Your task to perform on an android device: turn on location history Image 0: 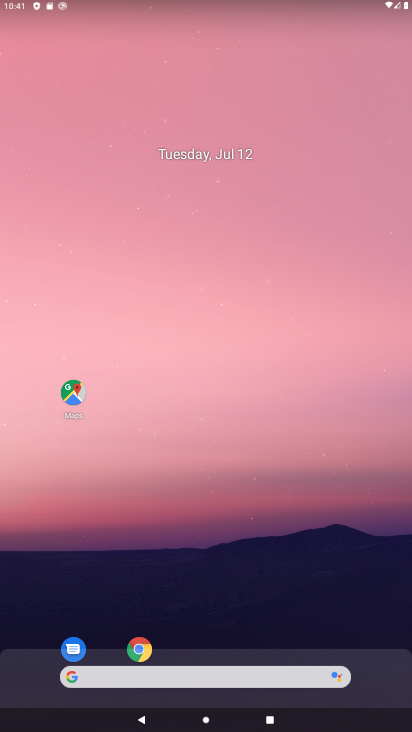
Step 0: drag from (302, 573) to (319, 10)
Your task to perform on an android device: turn on location history Image 1: 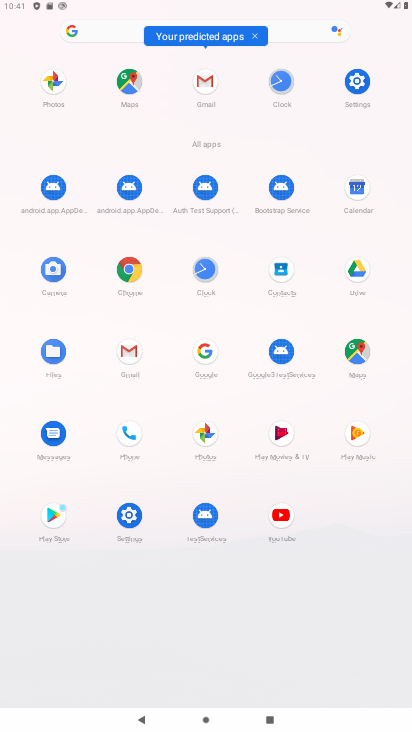
Step 1: click (368, 344)
Your task to perform on an android device: turn on location history Image 2: 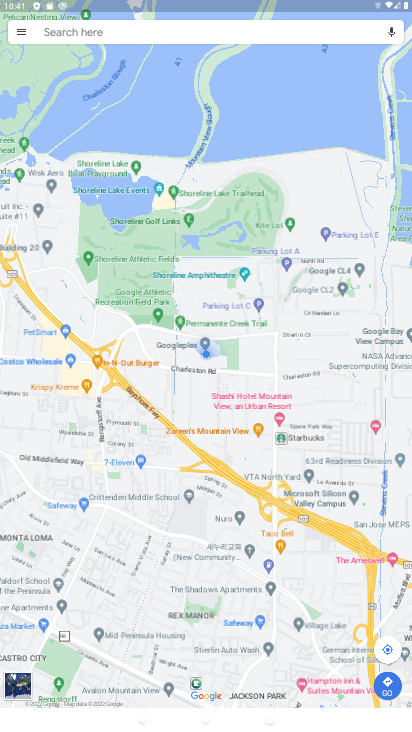
Step 2: click (22, 28)
Your task to perform on an android device: turn on location history Image 3: 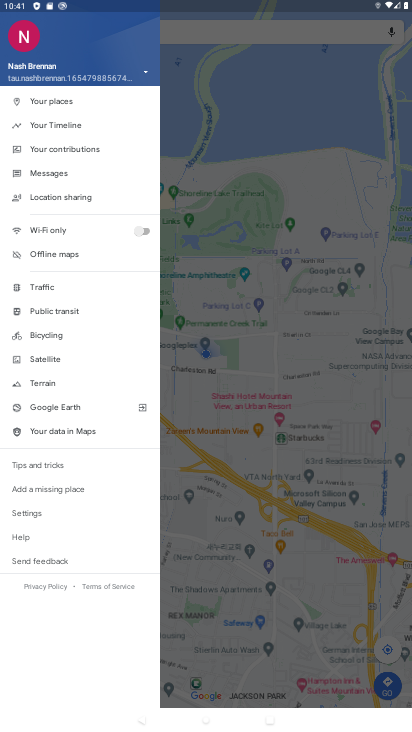
Step 3: click (74, 129)
Your task to perform on an android device: turn on location history Image 4: 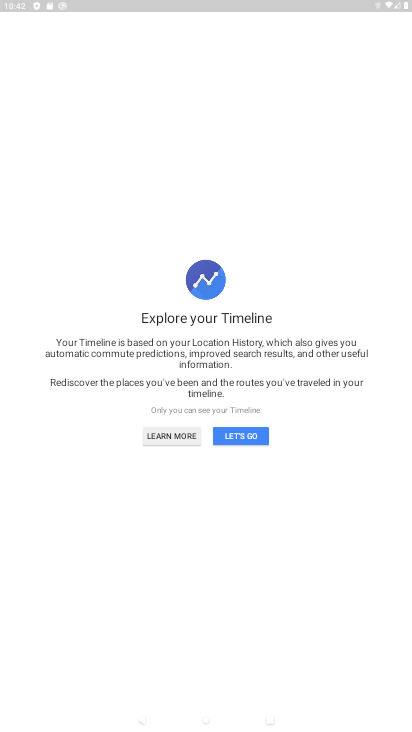
Step 4: click (261, 432)
Your task to perform on an android device: turn on location history Image 5: 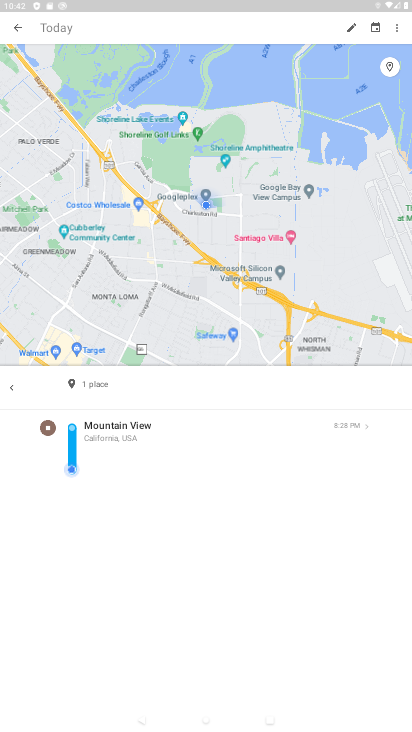
Step 5: click (398, 30)
Your task to perform on an android device: turn on location history Image 6: 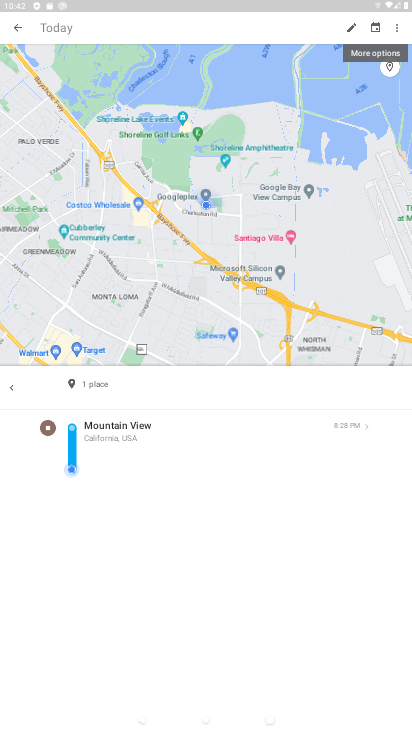
Step 6: click (398, 30)
Your task to perform on an android device: turn on location history Image 7: 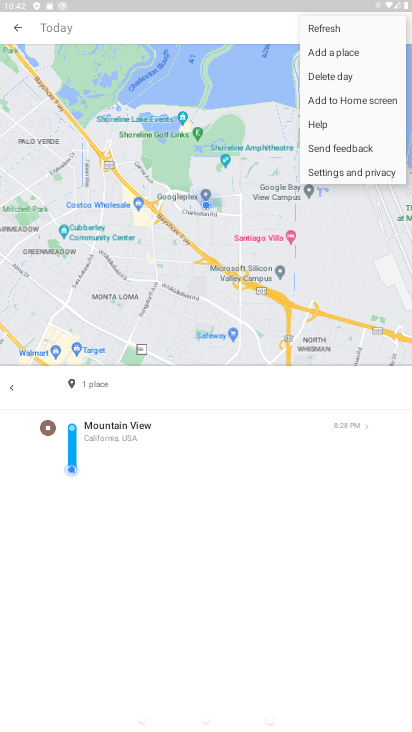
Step 7: click (398, 30)
Your task to perform on an android device: turn on location history Image 8: 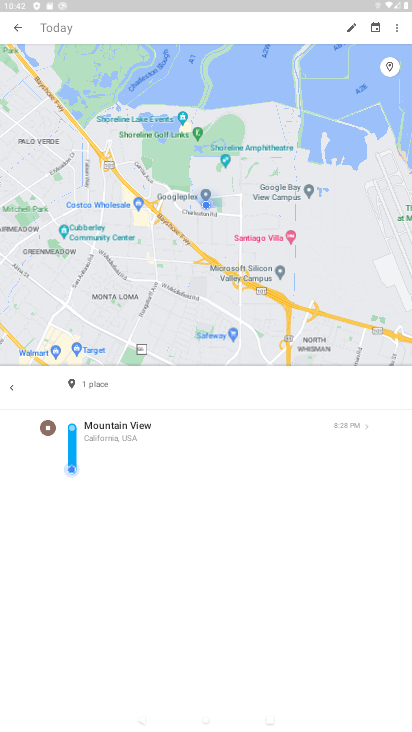
Step 8: click (394, 33)
Your task to perform on an android device: turn on location history Image 9: 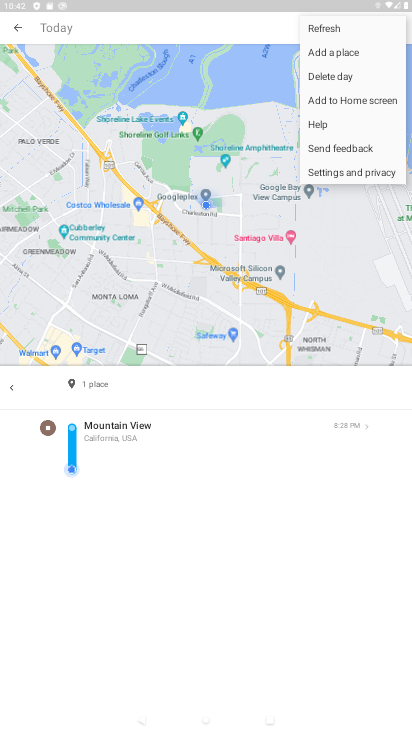
Step 9: click (372, 166)
Your task to perform on an android device: turn on location history Image 10: 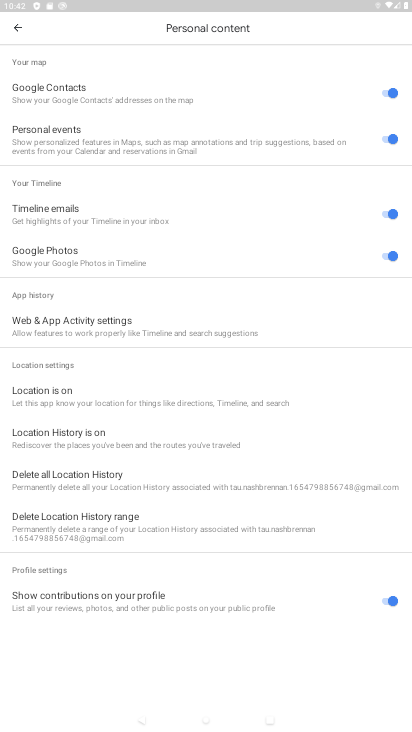
Step 10: click (82, 425)
Your task to perform on an android device: turn on location history Image 11: 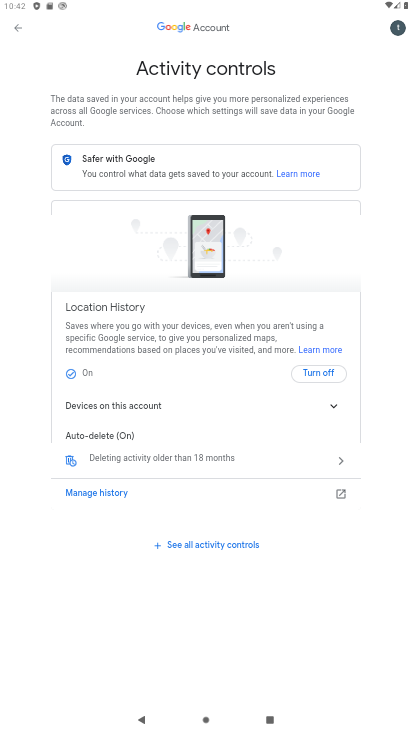
Step 11: task complete